Your task to perform on an android device: Open internet settings Image 0: 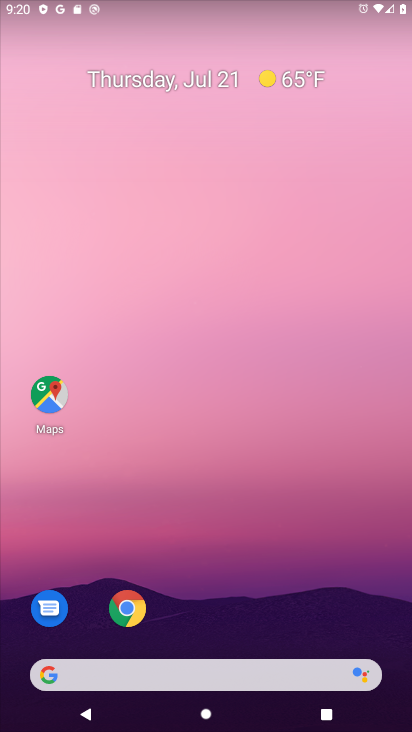
Step 0: drag from (238, 611) to (257, 236)
Your task to perform on an android device: Open internet settings Image 1: 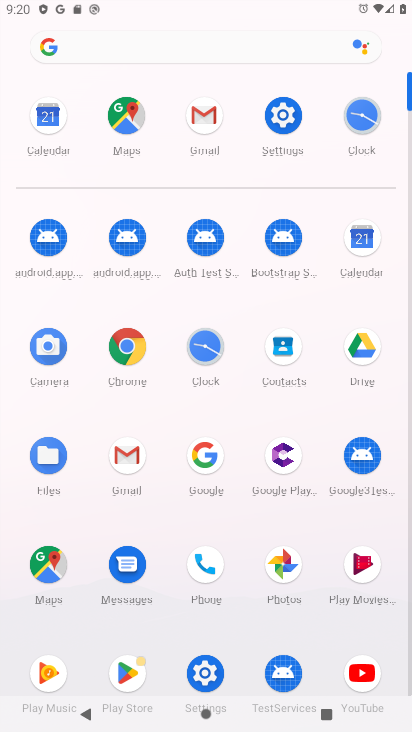
Step 1: click (204, 679)
Your task to perform on an android device: Open internet settings Image 2: 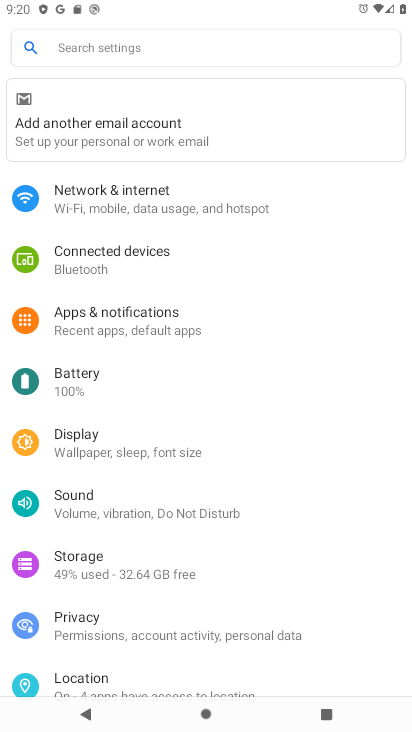
Step 2: click (99, 187)
Your task to perform on an android device: Open internet settings Image 3: 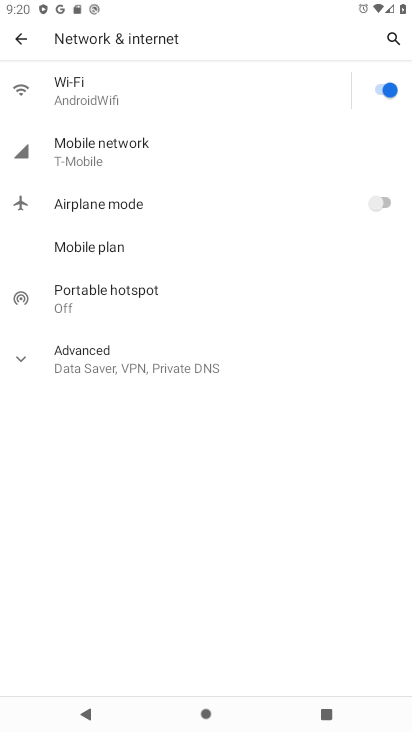
Step 3: task complete